Your task to perform on an android device: change the clock display to digital Image 0: 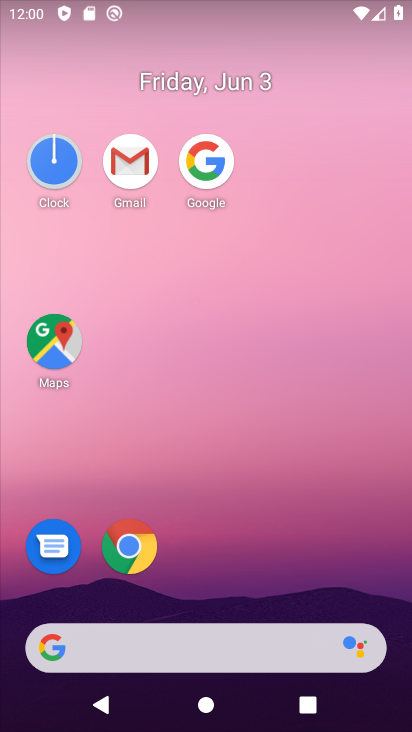
Step 0: click (63, 155)
Your task to perform on an android device: change the clock display to digital Image 1: 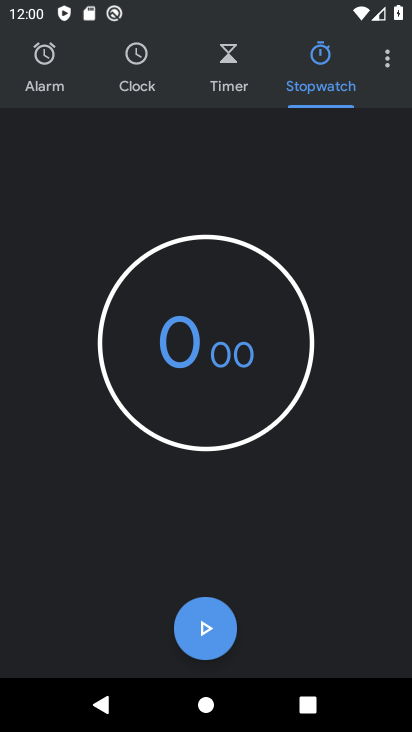
Step 1: click (381, 55)
Your task to perform on an android device: change the clock display to digital Image 2: 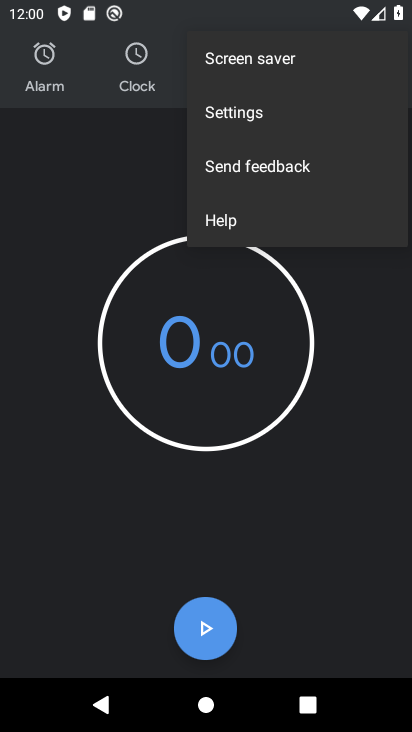
Step 2: click (234, 103)
Your task to perform on an android device: change the clock display to digital Image 3: 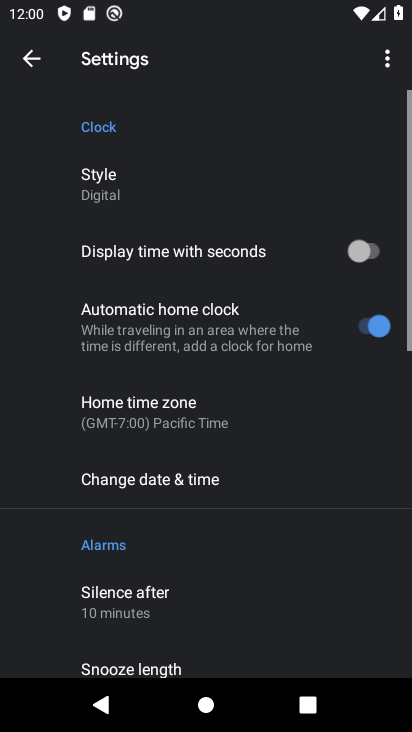
Step 3: click (93, 187)
Your task to perform on an android device: change the clock display to digital Image 4: 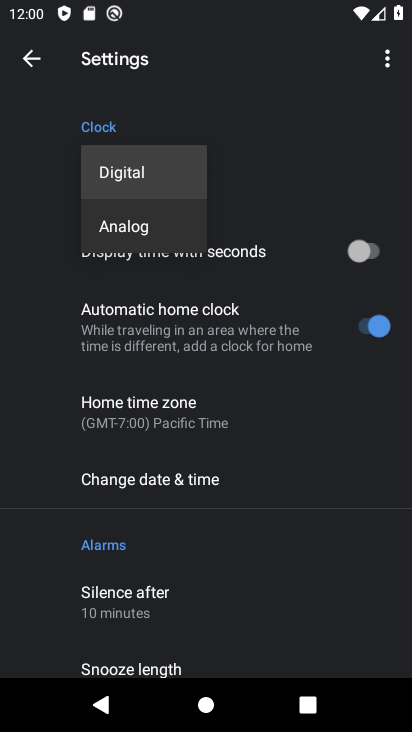
Step 4: task complete